Your task to perform on an android device: Go to ESPN.com Image 0: 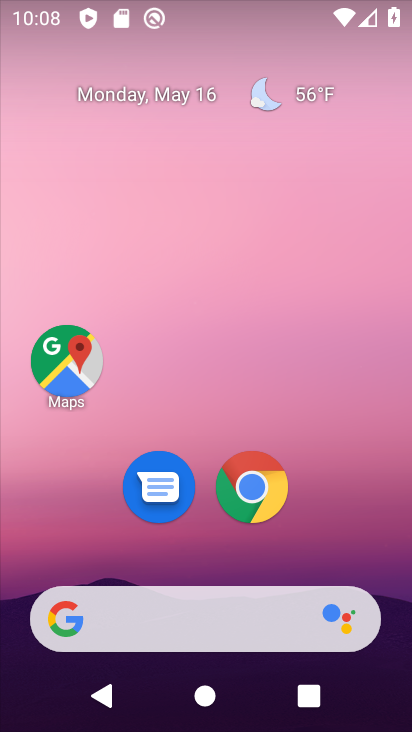
Step 0: click (265, 490)
Your task to perform on an android device: Go to ESPN.com Image 1: 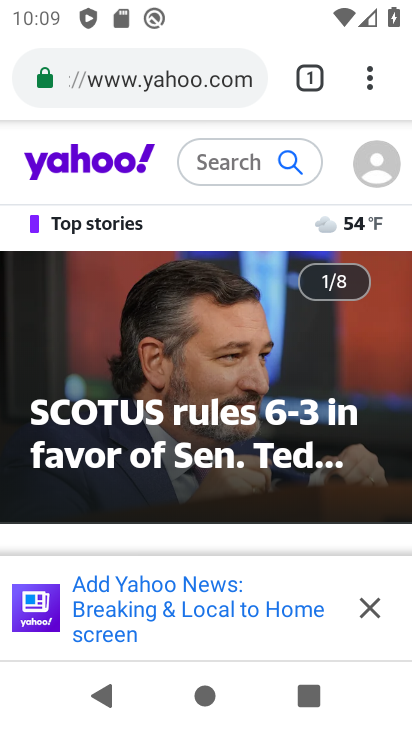
Step 1: press back button
Your task to perform on an android device: Go to ESPN.com Image 2: 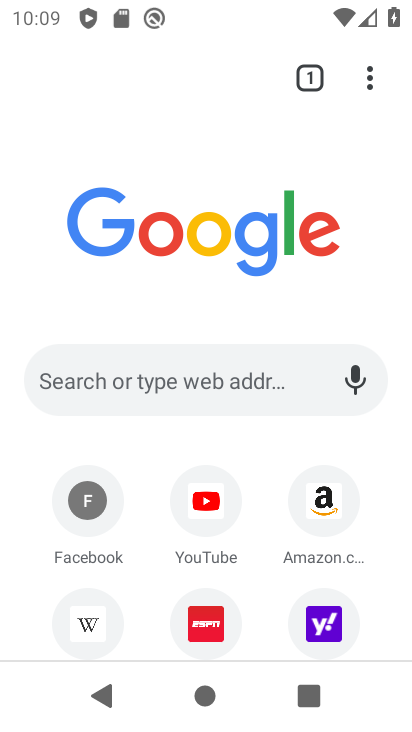
Step 2: click (208, 626)
Your task to perform on an android device: Go to ESPN.com Image 3: 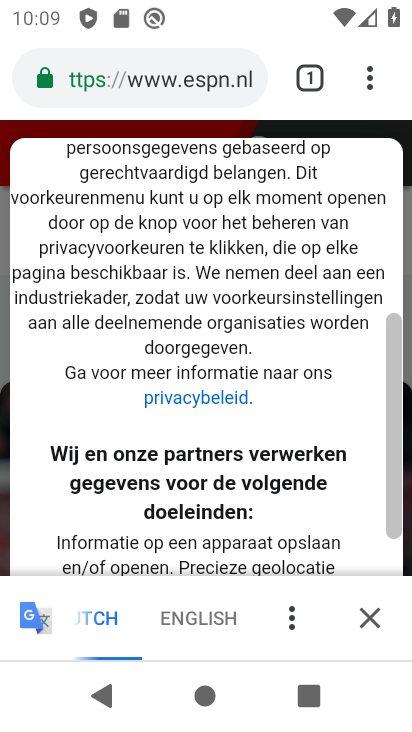
Step 3: task complete